Your task to perform on an android device: turn notification dots off Image 0: 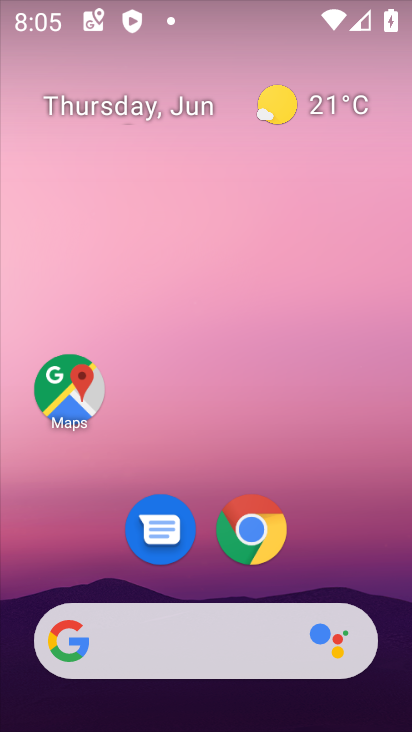
Step 0: drag from (400, 687) to (352, 84)
Your task to perform on an android device: turn notification dots off Image 1: 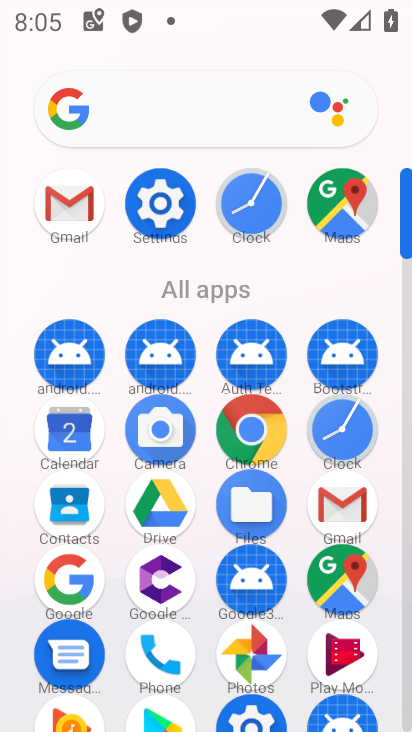
Step 1: click (167, 222)
Your task to perform on an android device: turn notification dots off Image 2: 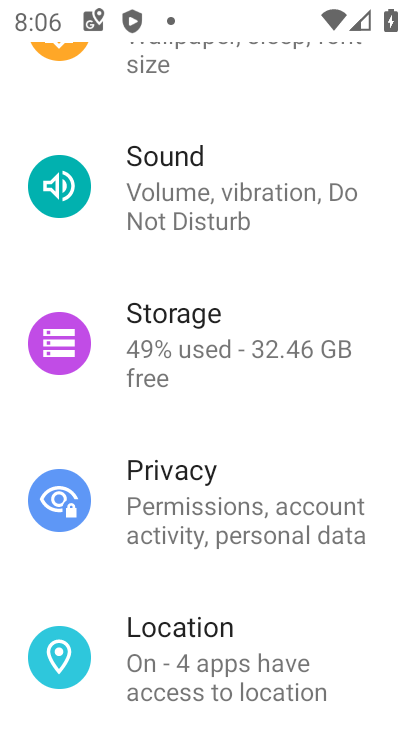
Step 2: drag from (271, 150) to (295, 591)
Your task to perform on an android device: turn notification dots off Image 3: 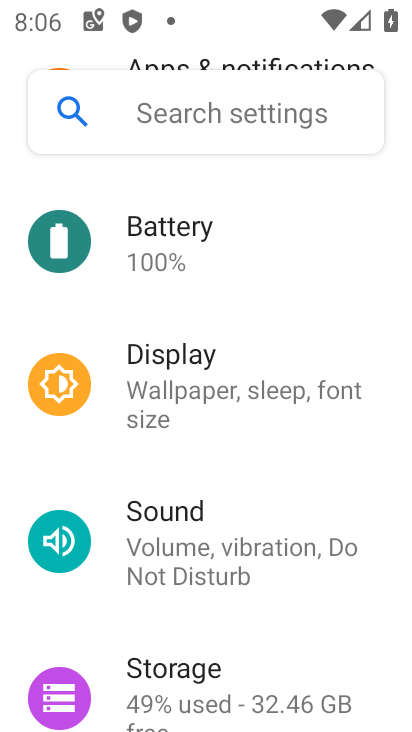
Step 3: drag from (280, 244) to (312, 645)
Your task to perform on an android device: turn notification dots off Image 4: 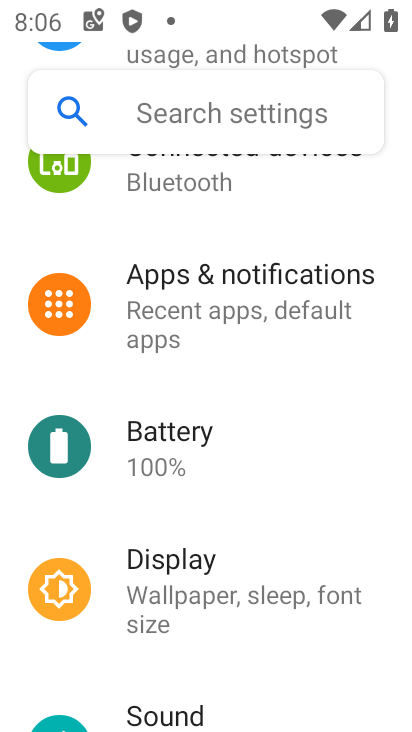
Step 4: click (254, 281)
Your task to perform on an android device: turn notification dots off Image 5: 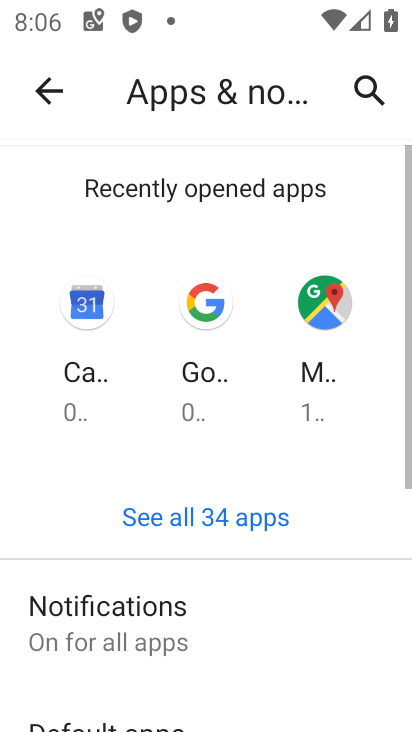
Step 5: click (135, 622)
Your task to perform on an android device: turn notification dots off Image 6: 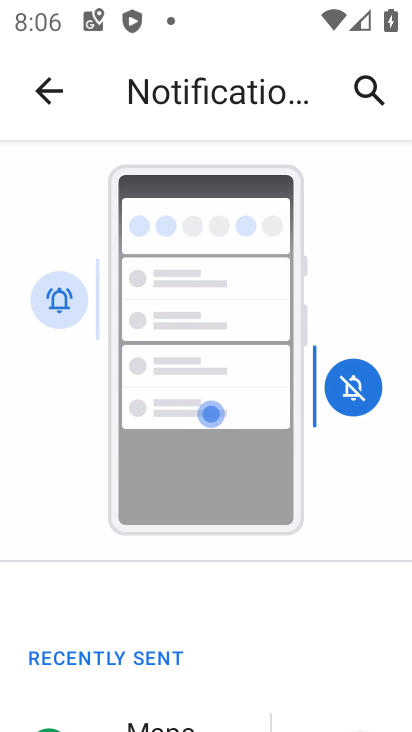
Step 6: drag from (263, 661) to (264, 250)
Your task to perform on an android device: turn notification dots off Image 7: 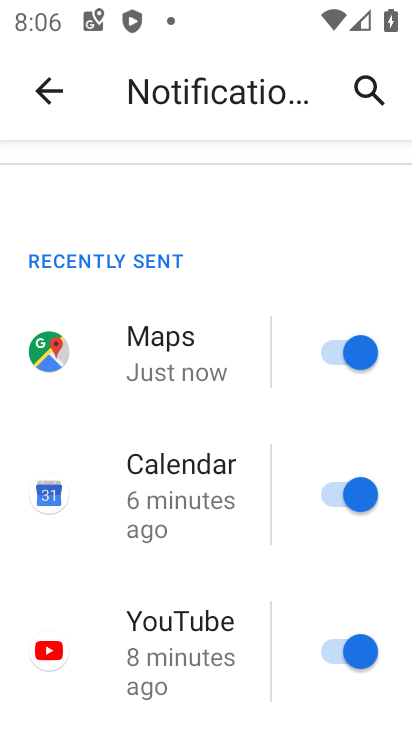
Step 7: click (333, 343)
Your task to perform on an android device: turn notification dots off Image 8: 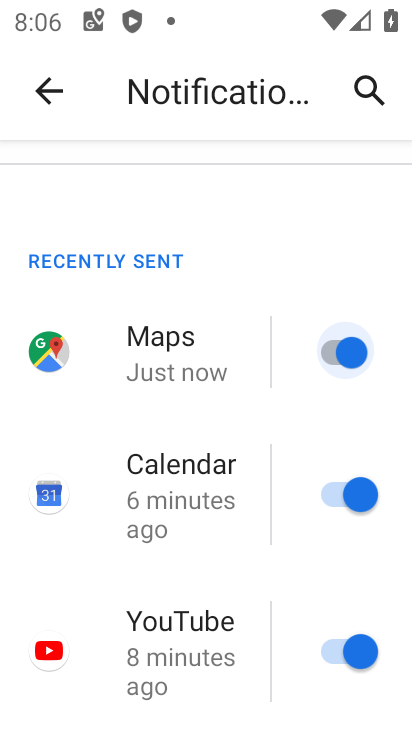
Step 8: click (331, 486)
Your task to perform on an android device: turn notification dots off Image 9: 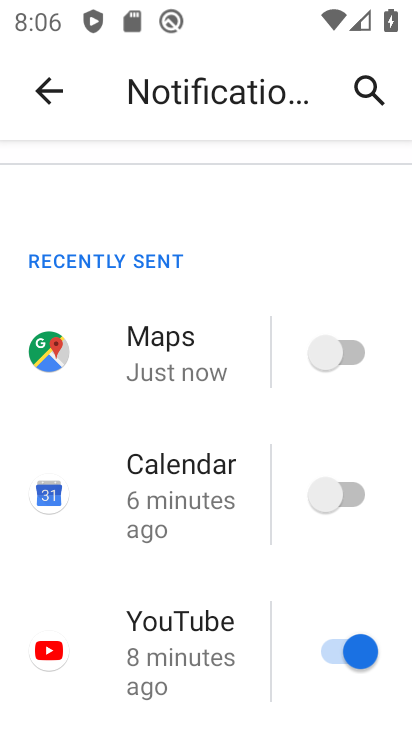
Step 9: click (328, 655)
Your task to perform on an android device: turn notification dots off Image 10: 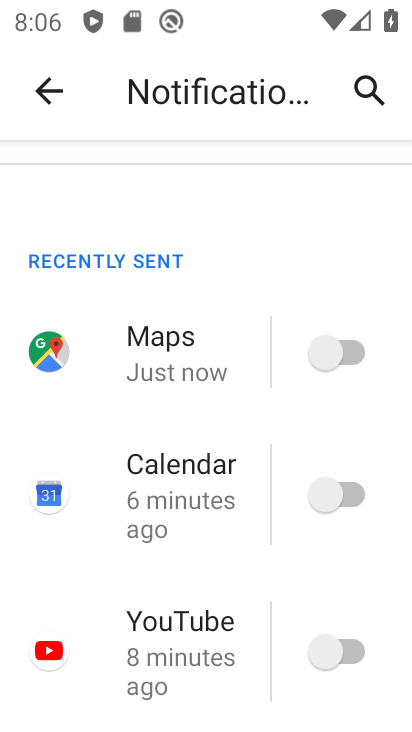
Step 10: task complete